Your task to perform on an android device: manage bookmarks in the chrome app Image 0: 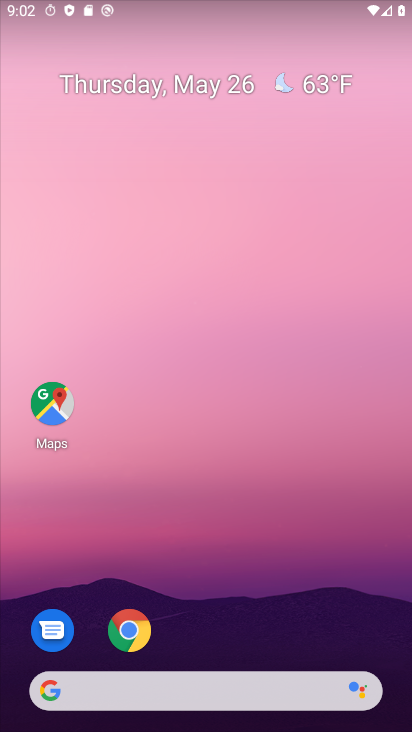
Step 0: drag from (279, 711) to (184, 271)
Your task to perform on an android device: manage bookmarks in the chrome app Image 1: 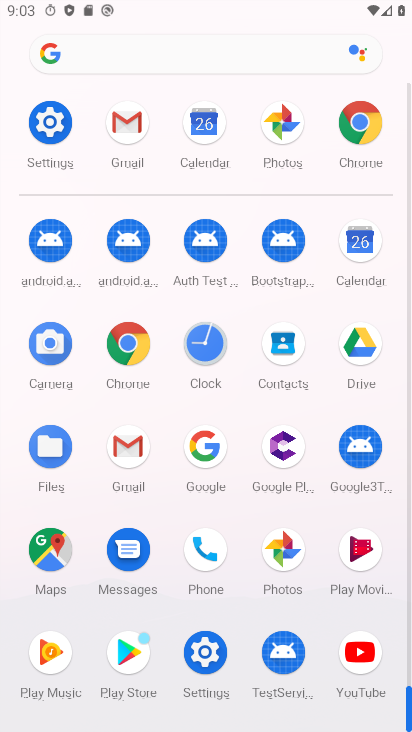
Step 1: click (349, 120)
Your task to perform on an android device: manage bookmarks in the chrome app Image 2: 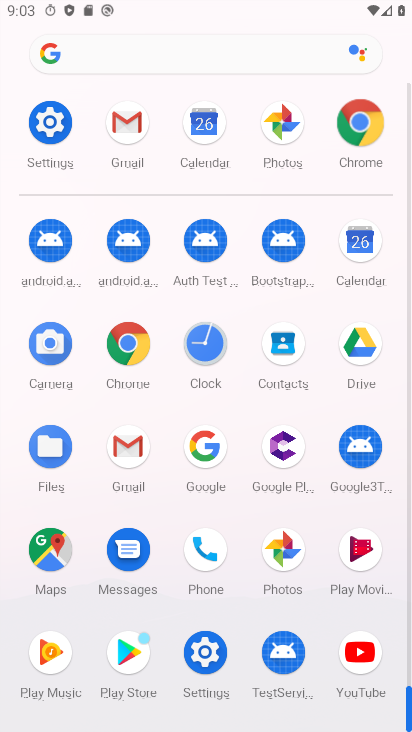
Step 2: click (356, 120)
Your task to perform on an android device: manage bookmarks in the chrome app Image 3: 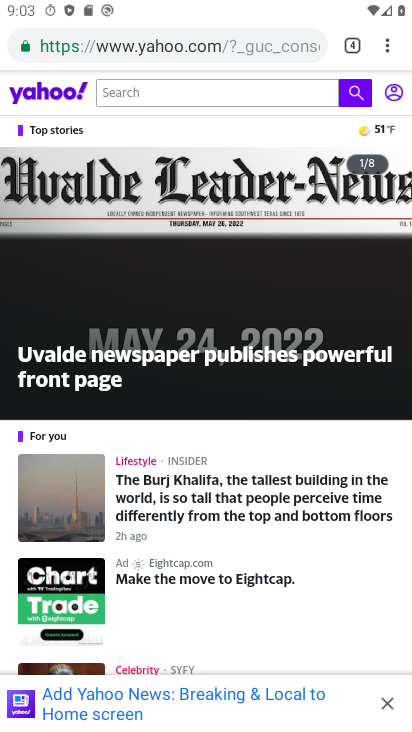
Step 3: press back button
Your task to perform on an android device: manage bookmarks in the chrome app Image 4: 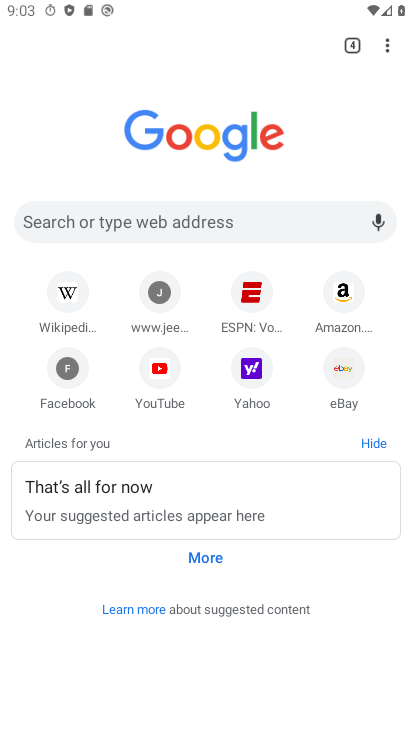
Step 4: drag from (386, 45) to (219, 164)
Your task to perform on an android device: manage bookmarks in the chrome app Image 5: 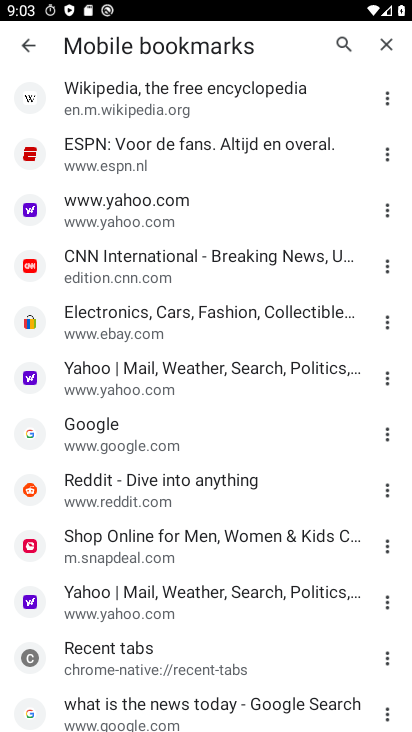
Step 5: click (381, 99)
Your task to perform on an android device: manage bookmarks in the chrome app Image 6: 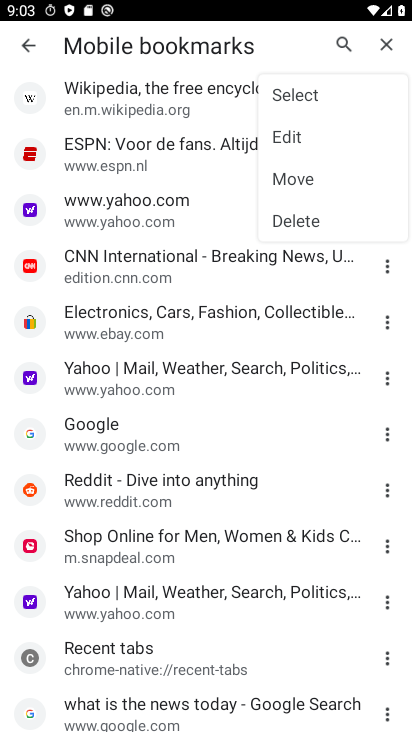
Step 6: click (307, 222)
Your task to perform on an android device: manage bookmarks in the chrome app Image 7: 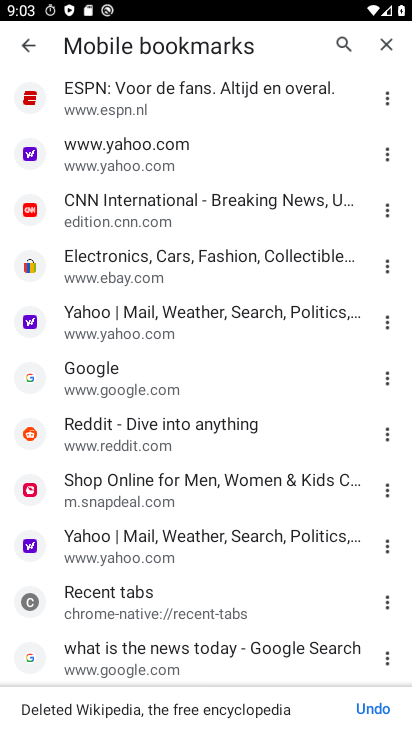
Step 7: task complete